Your task to perform on an android device: Open calendar and show me the second week of next month Image 0: 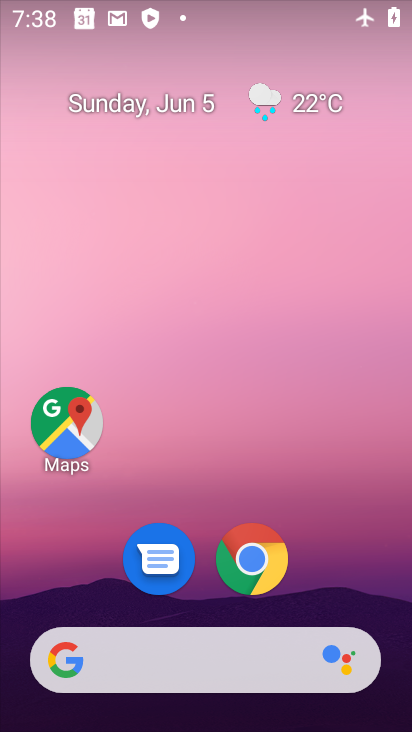
Step 0: drag from (336, 548) to (295, 54)
Your task to perform on an android device: Open calendar and show me the second week of next month Image 1: 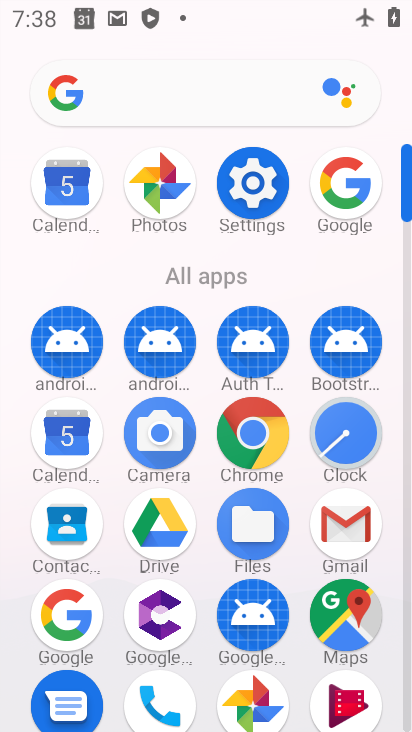
Step 1: click (64, 189)
Your task to perform on an android device: Open calendar and show me the second week of next month Image 2: 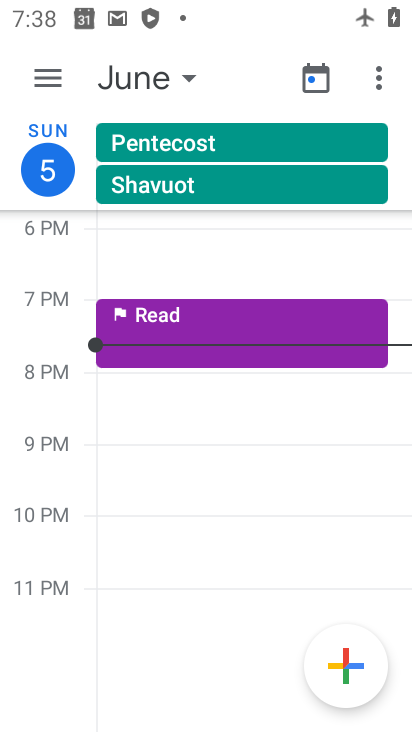
Step 2: click (183, 80)
Your task to perform on an android device: Open calendar and show me the second week of next month Image 3: 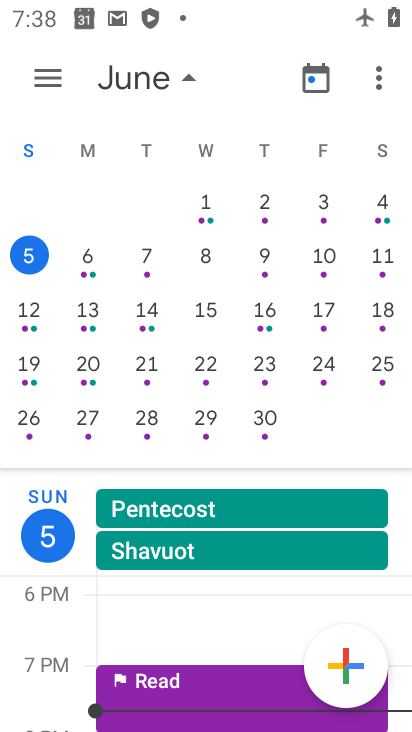
Step 3: drag from (355, 335) to (0, 376)
Your task to perform on an android device: Open calendar and show me the second week of next month Image 4: 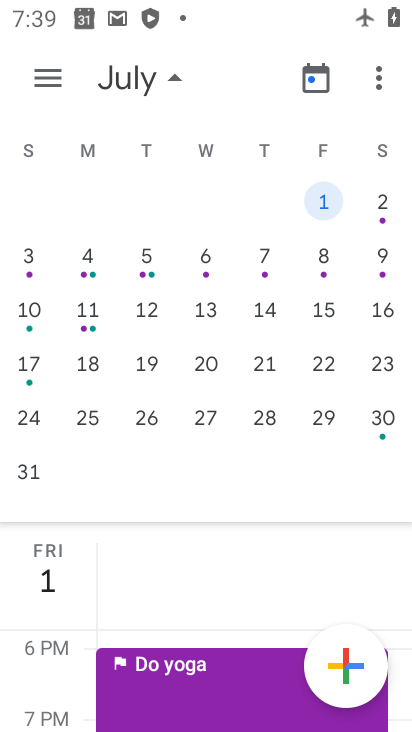
Step 4: click (91, 317)
Your task to perform on an android device: Open calendar and show me the second week of next month Image 5: 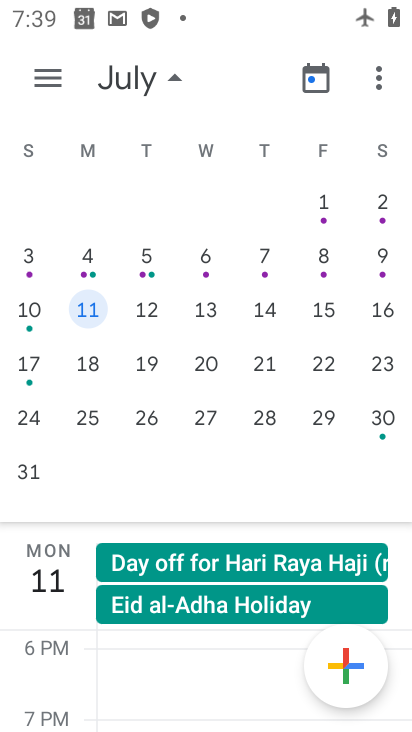
Step 5: click (59, 78)
Your task to perform on an android device: Open calendar and show me the second week of next month Image 6: 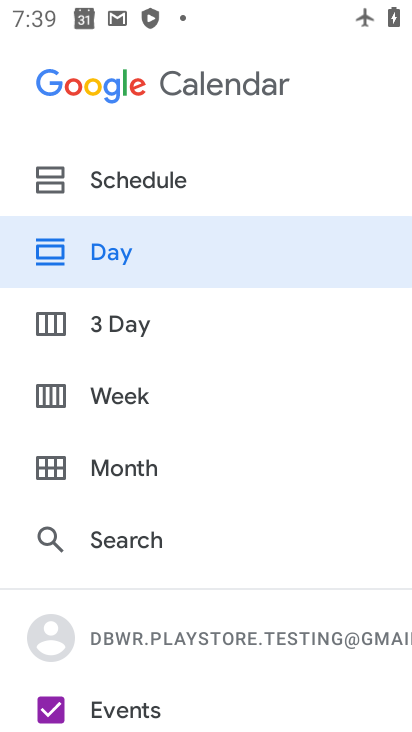
Step 6: click (120, 404)
Your task to perform on an android device: Open calendar and show me the second week of next month Image 7: 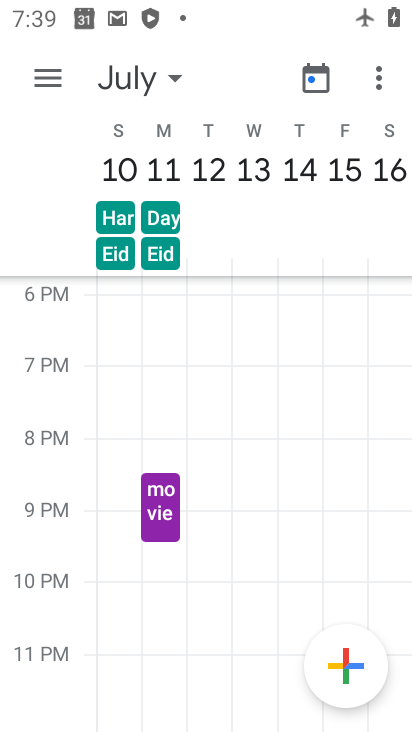
Step 7: task complete